Your task to perform on an android device: Show me productivity apps on the Play Store Image 0: 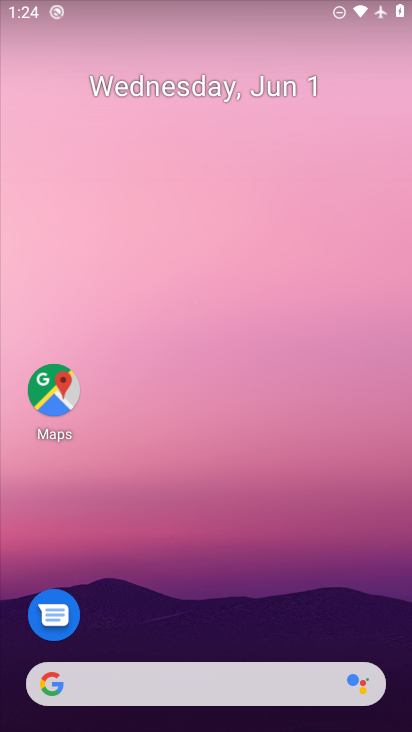
Step 0: drag from (77, 430) to (91, 95)
Your task to perform on an android device: Show me productivity apps on the Play Store Image 1: 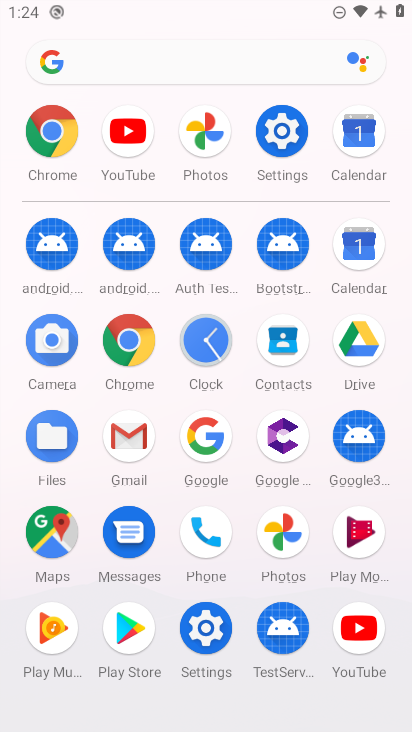
Step 1: click (115, 637)
Your task to perform on an android device: Show me productivity apps on the Play Store Image 2: 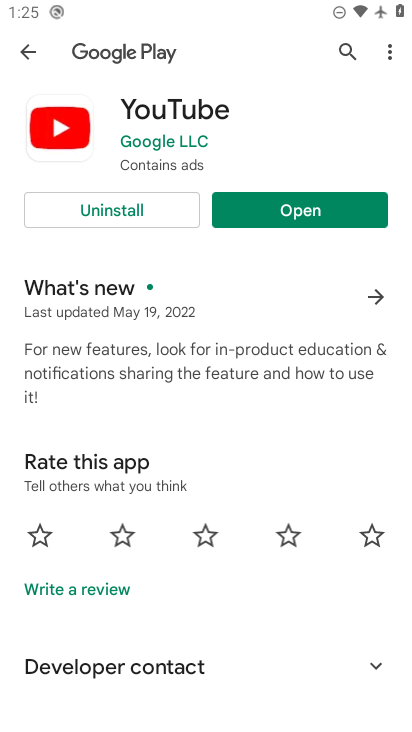
Step 2: press back button
Your task to perform on an android device: Show me productivity apps on the Play Store Image 3: 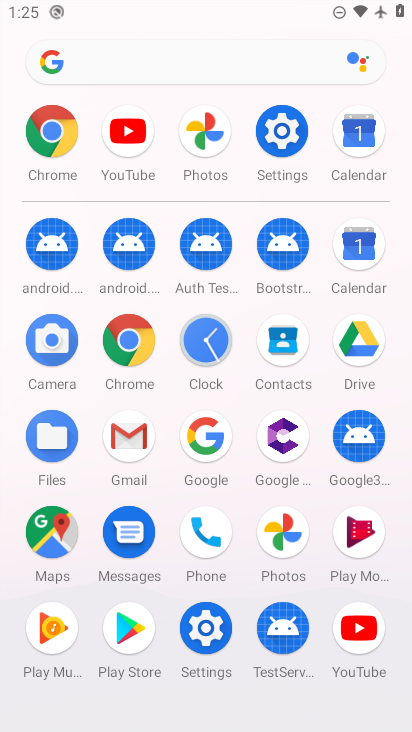
Step 3: click (340, 635)
Your task to perform on an android device: Show me productivity apps on the Play Store Image 4: 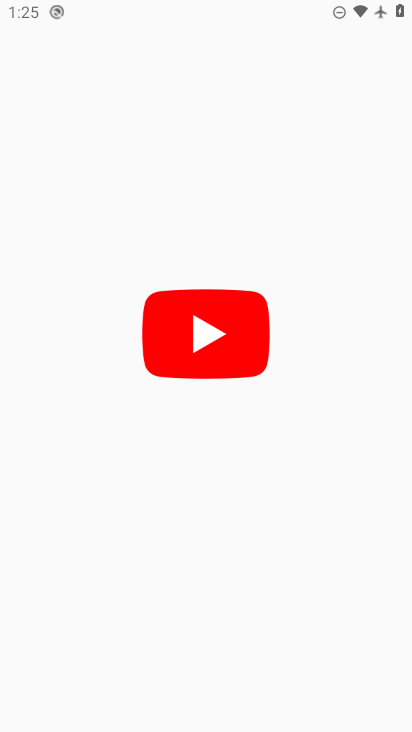
Step 4: press home button
Your task to perform on an android device: Show me productivity apps on the Play Store Image 5: 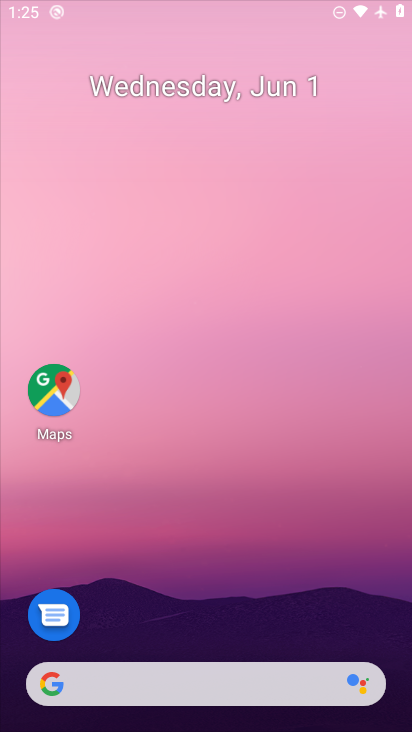
Step 5: click (249, 689)
Your task to perform on an android device: Show me productivity apps on the Play Store Image 6: 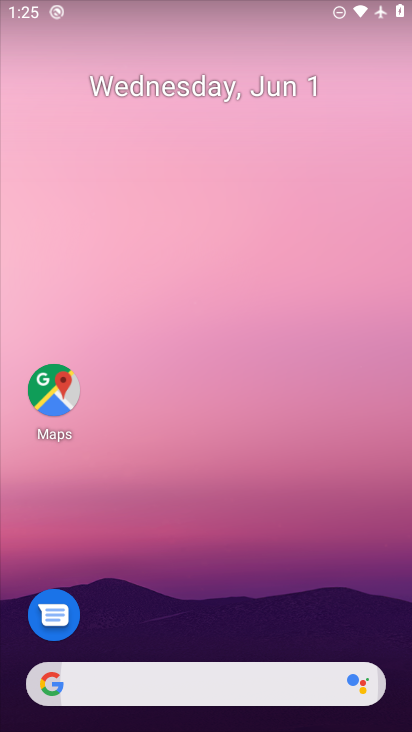
Step 6: drag from (155, 703) to (244, 86)
Your task to perform on an android device: Show me productivity apps on the Play Store Image 7: 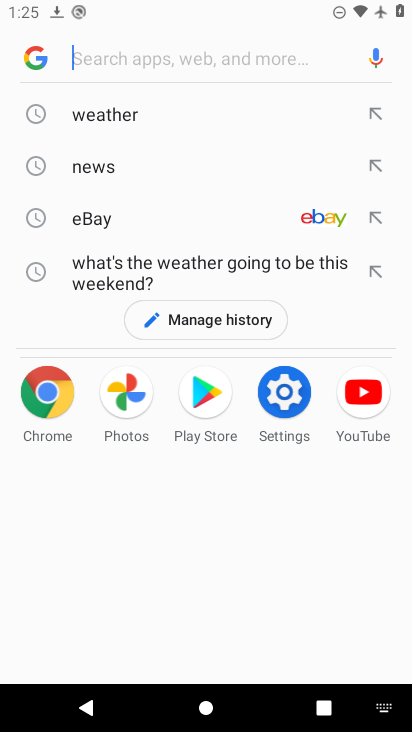
Step 7: press home button
Your task to perform on an android device: Show me productivity apps on the Play Store Image 8: 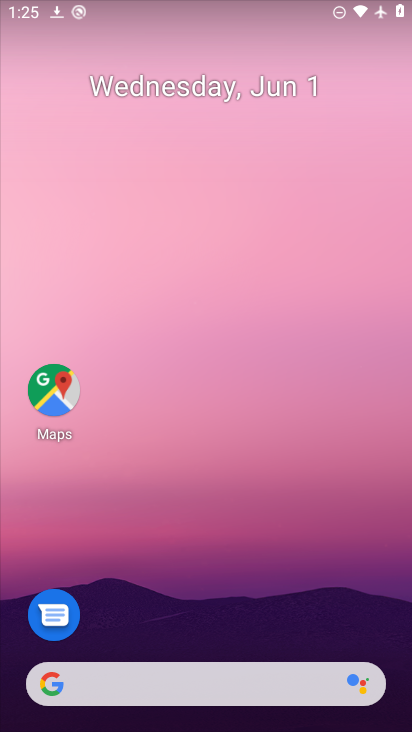
Step 8: drag from (191, 605) to (122, 0)
Your task to perform on an android device: Show me productivity apps on the Play Store Image 9: 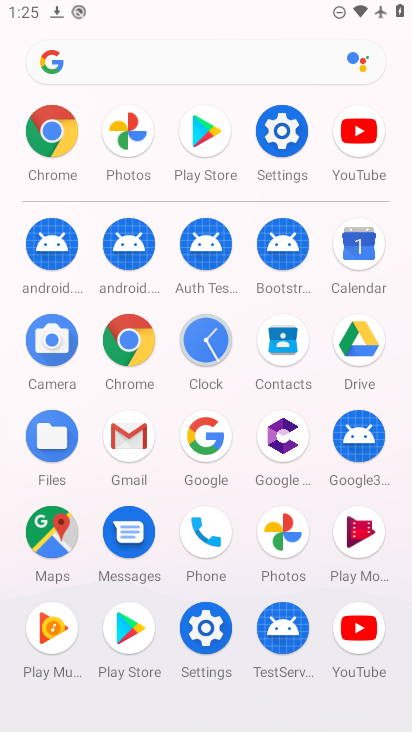
Step 9: click (116, 622)
Your task to perform on an android device: Show me productivity apps on the Play Store Image 10: 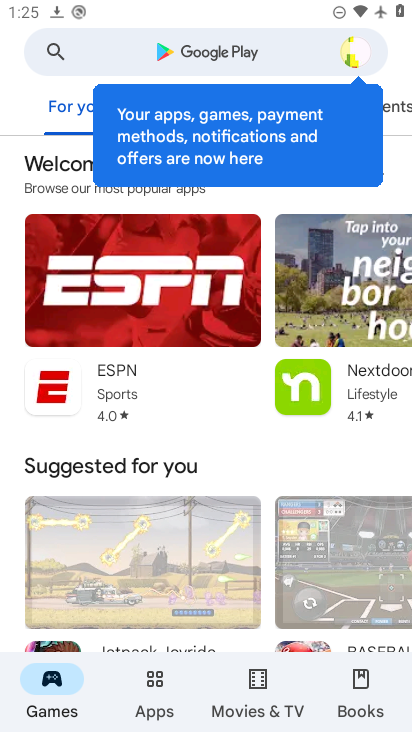
Step 10: click (166, 685)
Your task to perform on an android device: Show me productivity apps on the Play Store Image 11: 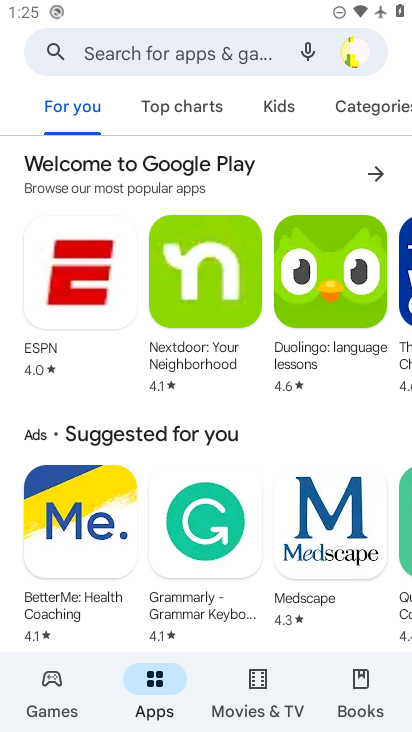
Step 11: drag from (231, 600) to (237, 102)
Your task to perform on an android device: Show me productivity apps on the Play Store Image 12: 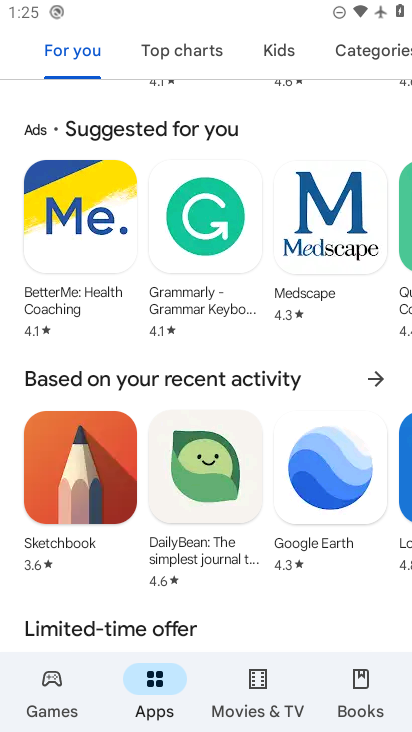
Step 12: drag from (288, 565) to (303, 189)
Your task to perform on an android device: Show me productivity apps on the Play Store Image 13: 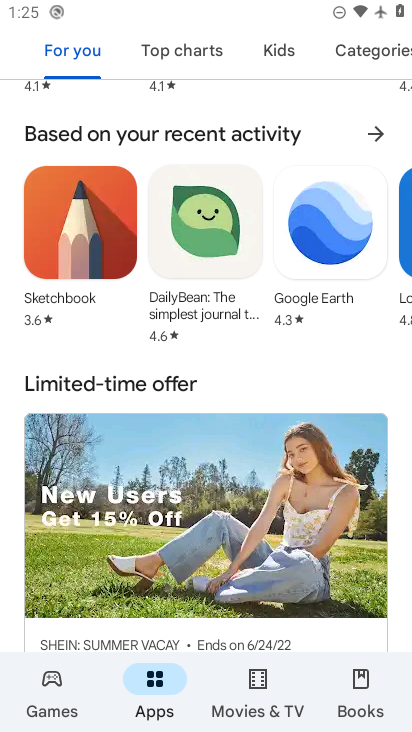
Step 13: drag from (322, 366) to (324, 147)
Your task to perform on an android device: Show me productivity apps on the Play Store Image 14: 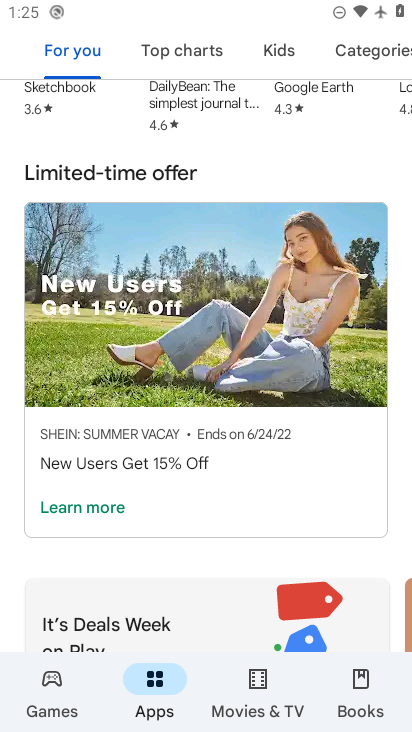
Step 14: drag from (264, 419) to (262, 97)
Your task to perform on an android device: Show me productivity apps on the Play Store Image 15: 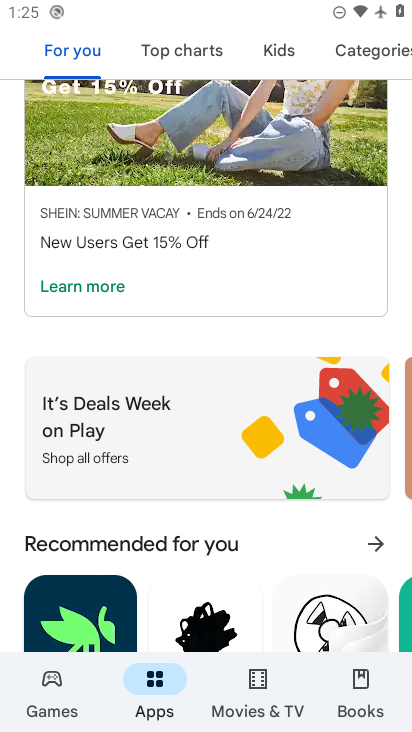
Step 15: drag from (270, 391) to (292, 231)
Your task to perform on an android device: Show me productivity apps on the Play Store Image 16: 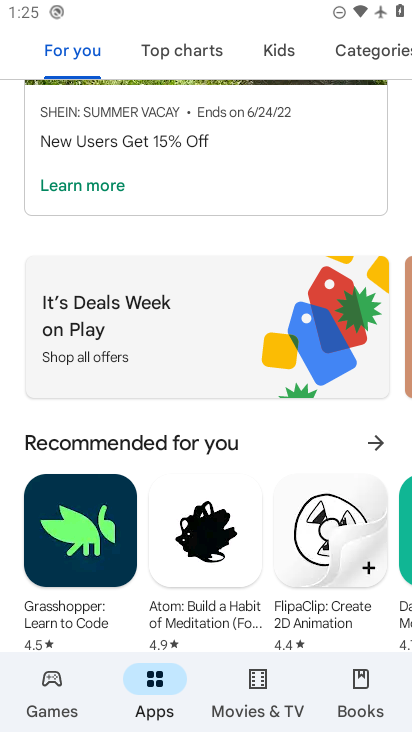
Step 16: drag from (252, 399) to (315, 125)
Your task to perform on an android device: Show me productivity apps on the Play Store Image 17: 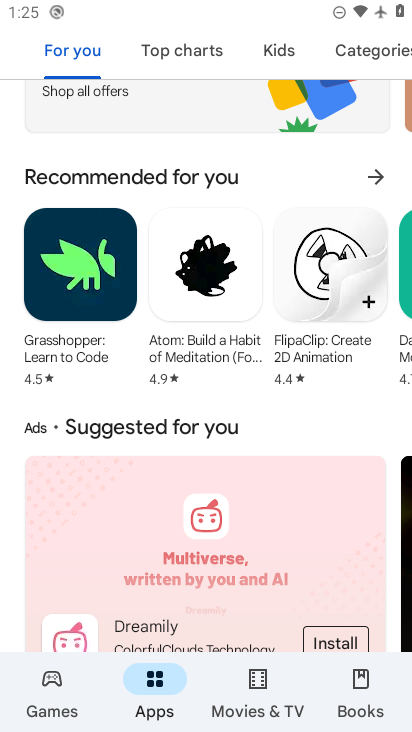
Step 17: drag from (278, 378) to (323, 16)
Your task to perform on an android device: Show me productivity apps on the Play Store Image 18: 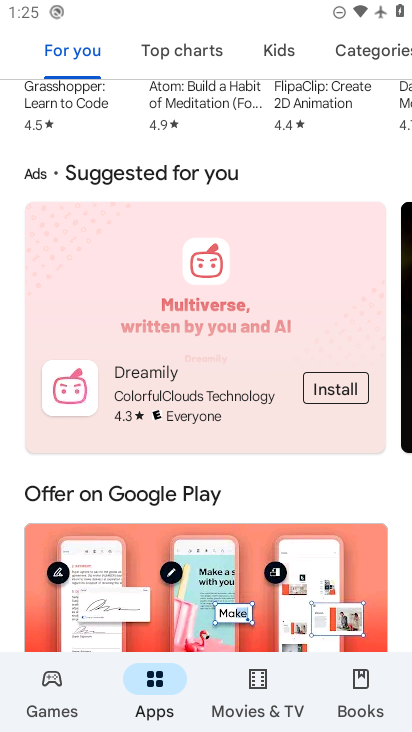
Step 18: drag from (266, 511) to (289, 0)
Your task to perform on an android device: Show me productivity apps on the Play Store Image 19: 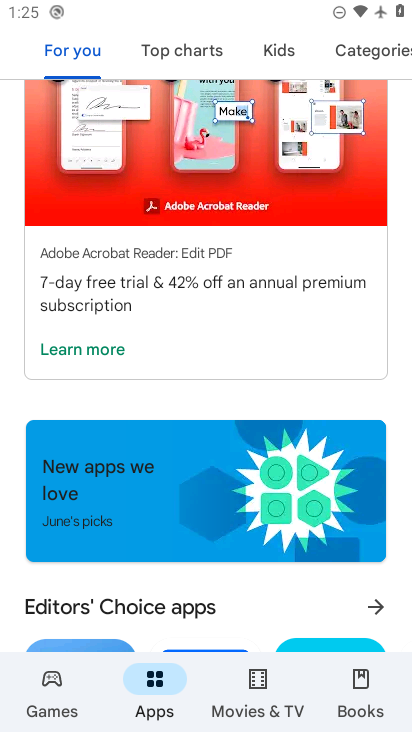
Step 19: drag from (238, 53) to (179, 13)
Your task to perform on an android device: Show me productivity apps on the Play Store Image 20: 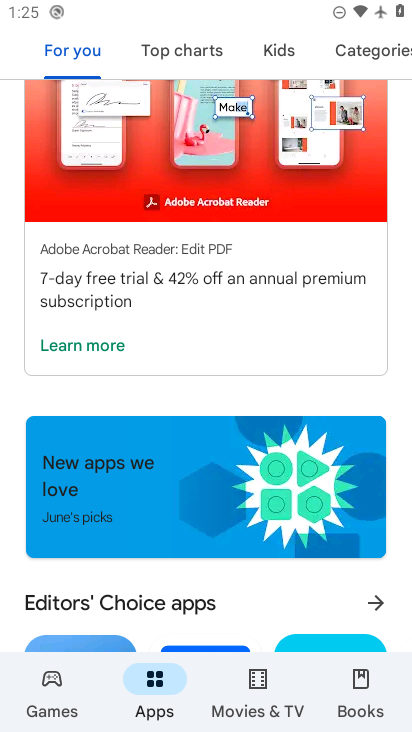
Step 20: drag from (214, 490) to (224, 99)
Your task to perform on an android device: Show me productivity apps on the Play Store Image 21: 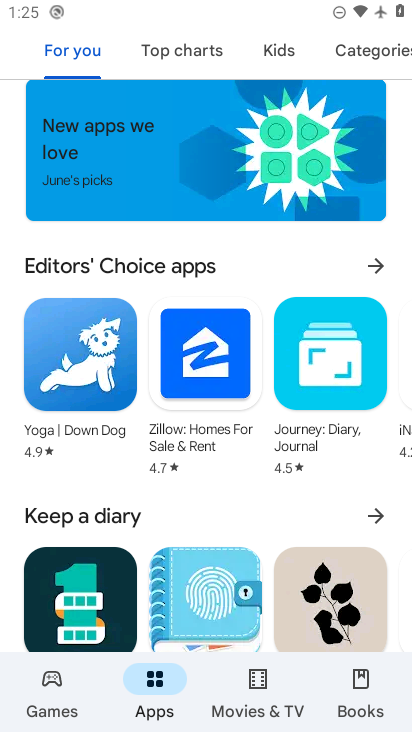
Step 21: drag from (273, 616) to (275, 141)
Your task to perform on an android device: Show me productivity apps on the Play Store Image 22: 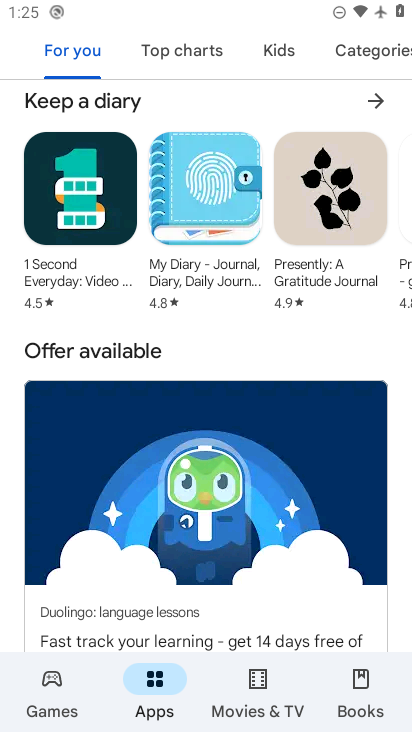
Step 22: drag from (256, 446) to (282, 82)
Your task to perform on an android device: Show me productivity apps on the Play Store Image 23: 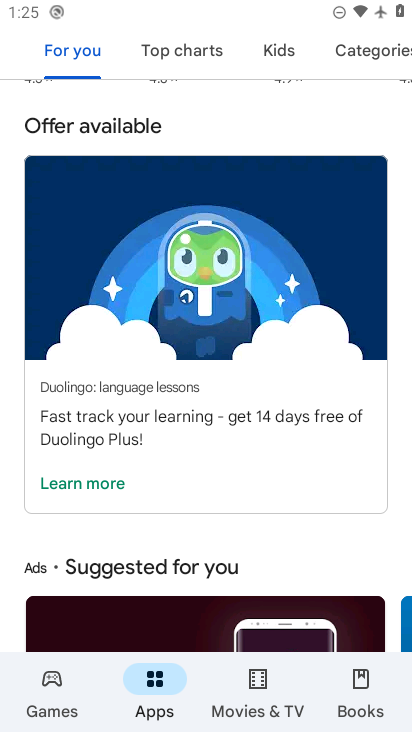
Step 23: drag from (252, 562) to (266, 169)
Your task to perform on an android device: Show me productivity apps on the Play Store Image 24: 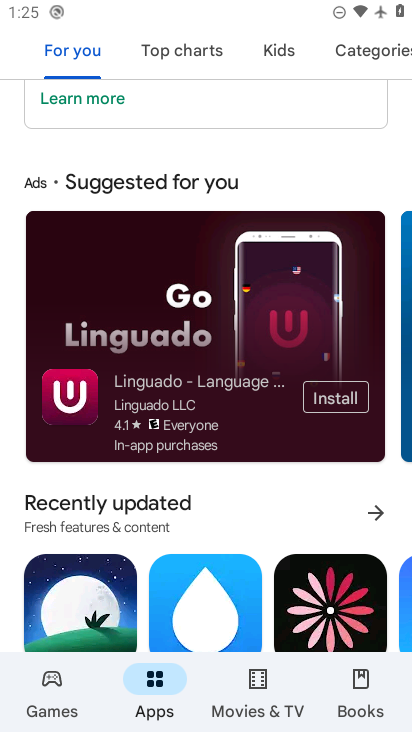
Step 24: drag from (235, 640) to (236, 147)
Your task to perform on an android device: Show me productivity apps on the Play Store Image 25: 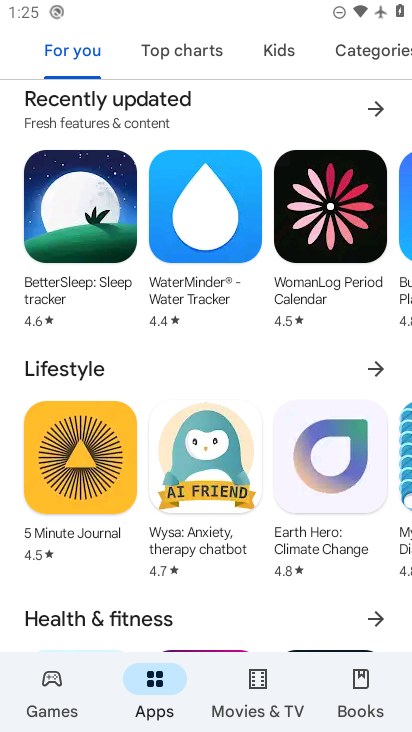
Step 25: drag from (303, 573) to (323, 130)
Your task to perform on an android device: Show me productivity apps on the Play Store Image 26: 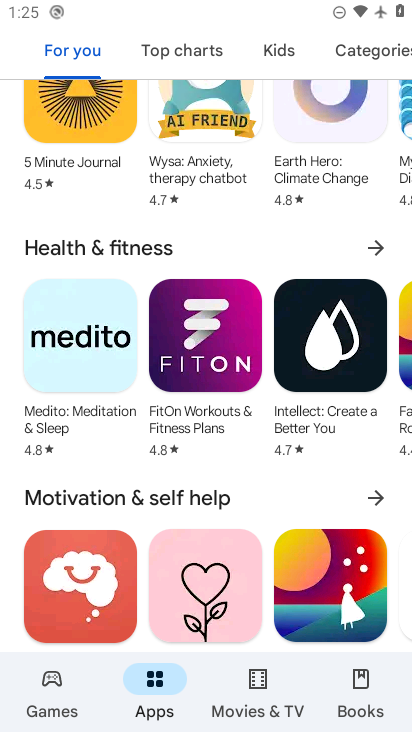
Step 26: drag from (189, 415) to (243, 28)
Your task to perform on an android device: Show me productivity apps on the Play Store Image 27: 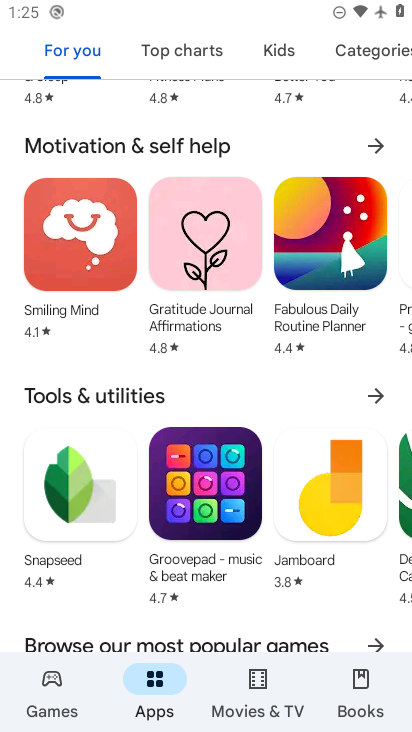
Step 27: drag from (251, 604) to (268, 99)
Your task to perform on an android device: Show me productivity apps on the Play Store Image 28: 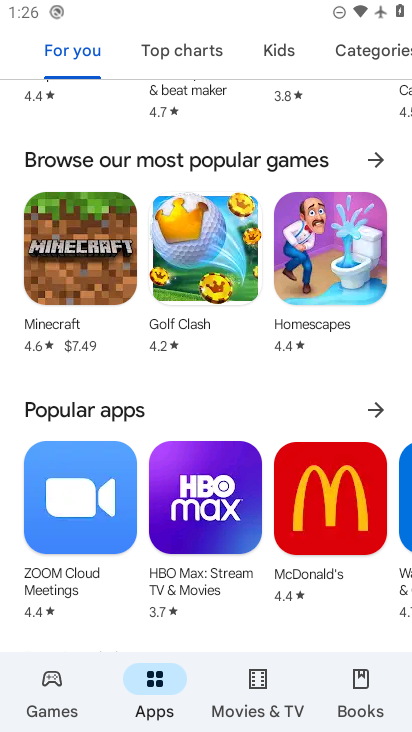
Step 28: drag from (239, 539) to (290, 134)
Your task to perform on an android device: Show me productivity apps on the Play Store Image 29: 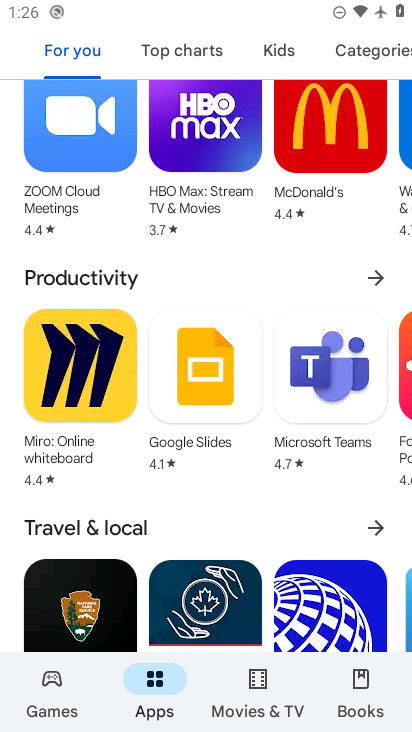
Step 29: click (381, 282)
Your task to perform on an android device: Show me productivity apps on the Play Store Image 30: 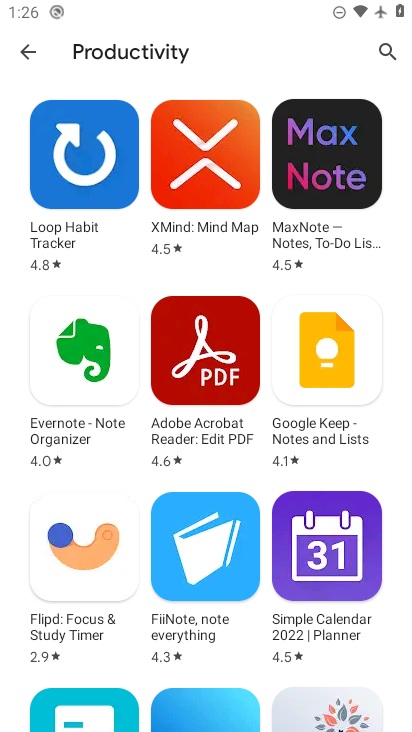
Step 30: task complete